Your task to perform on an android device: add a contact Image 0: 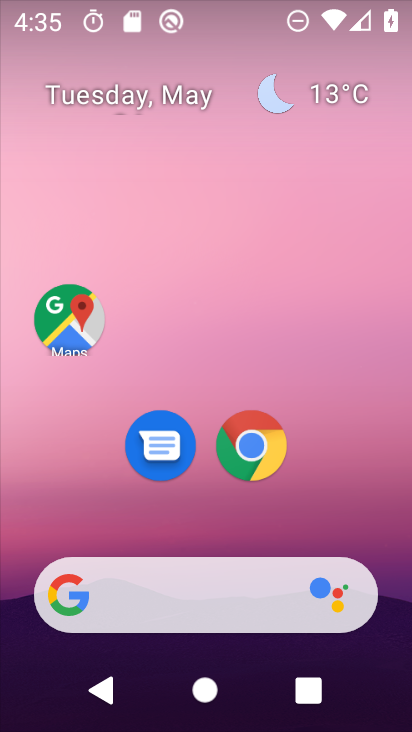
Step 0: press home button
Your task to perform on an android device: add a contact Image 1: 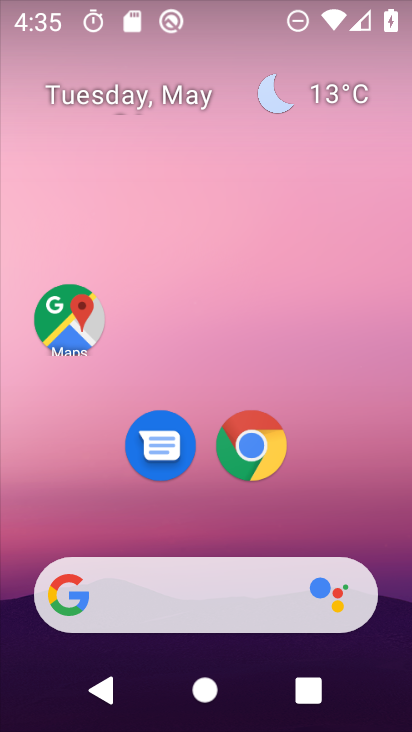
Step 1: drag from (221, 513) to (231, 89)
Your task to perform on an android device: add a contact Image 2: 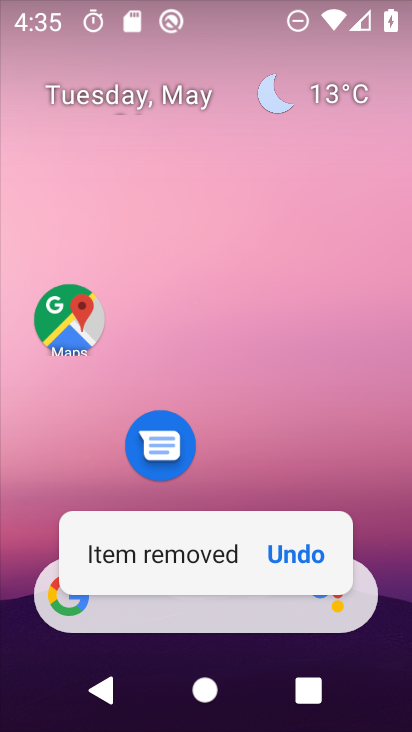
Step 2: click (286, 548)
Your task to perform on an android device: add a contact Image 3: 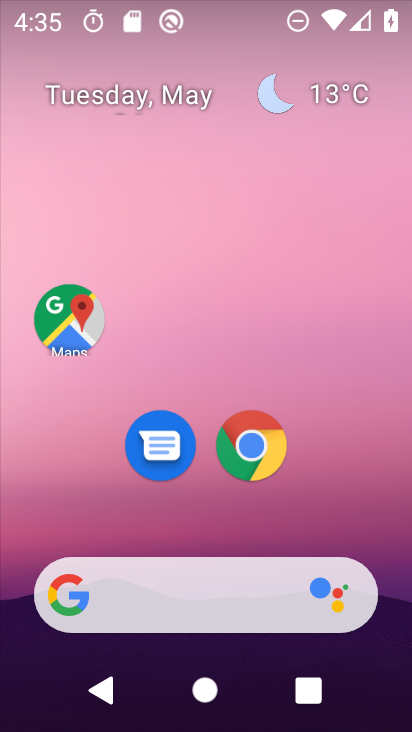
Step 3: drag from (338, 514) to (324, 74)
Your task to perform on an android device: add a contact Image 4: 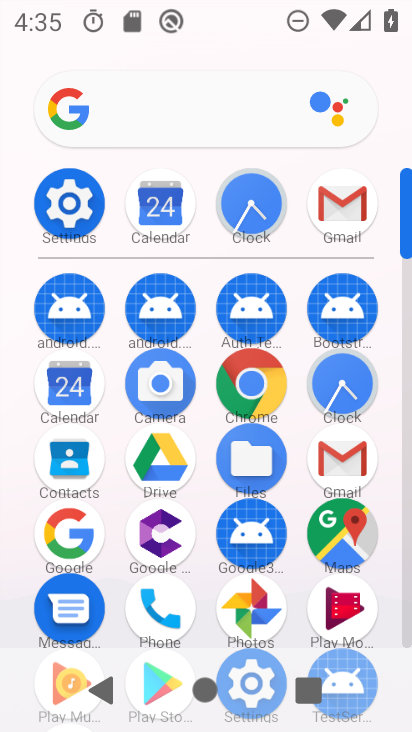
Step 4: click (67, 453)
Your task to perform on an android device: add a contact Image 5: 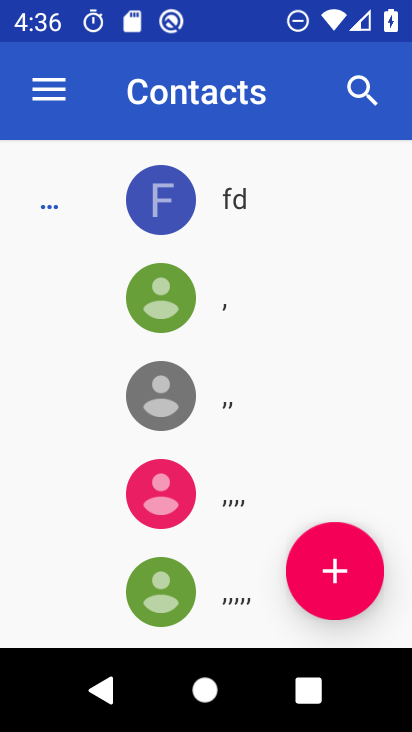
Step 5: click (330, 563)
Your task to perform on an android device: add a contact Image 6: 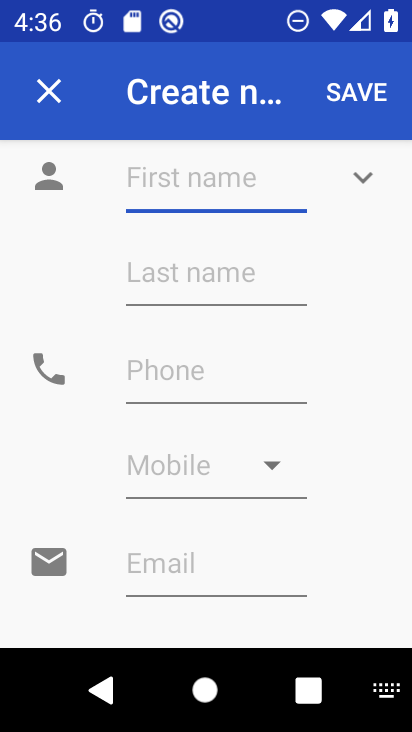
Step 6: type "bb gcf"
Your task to perform on an android device: add a contact Image 7: 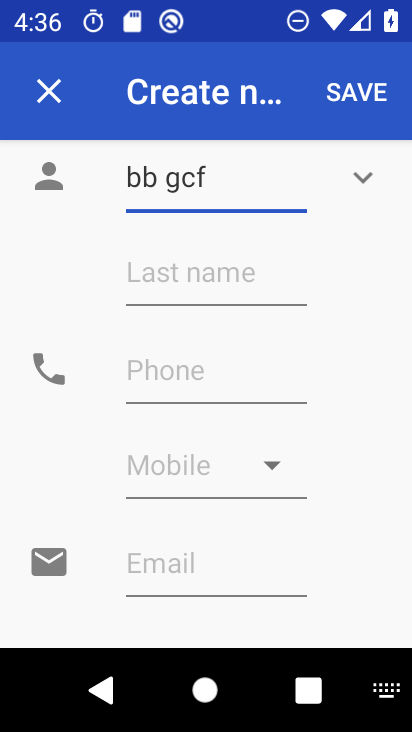
Step 7: click (330, 109)
Your task to perform on an android device: add a contact Image 8: 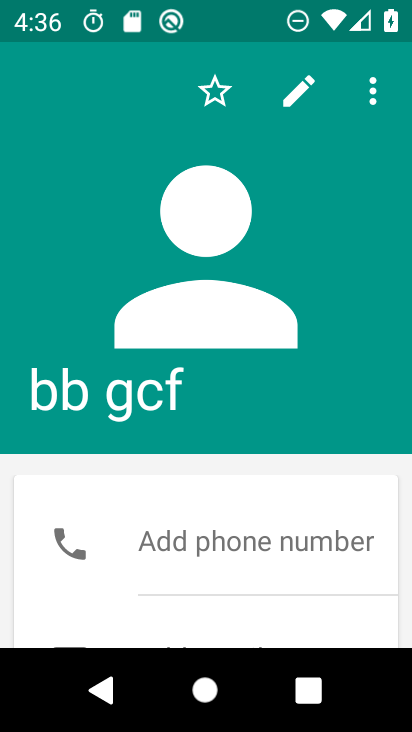
Step 8: task complete